Your task to perform on an android device: snooze an email in the gmail app Image 0: 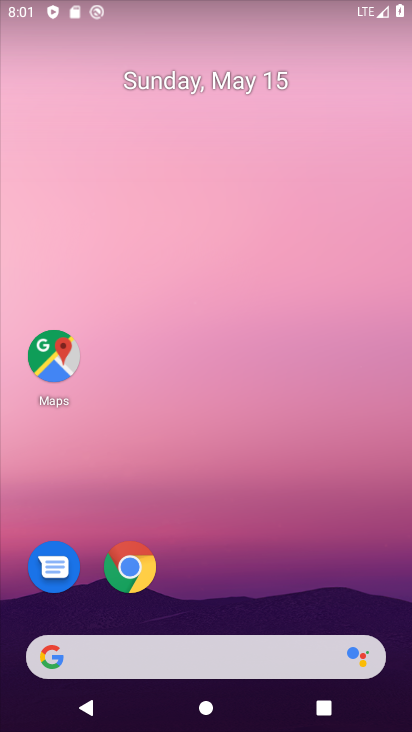
Step 0: drag from (222, 565) to (250, 84)
Your task to perform on an android device: snooze an email in the gmail app Image 1: 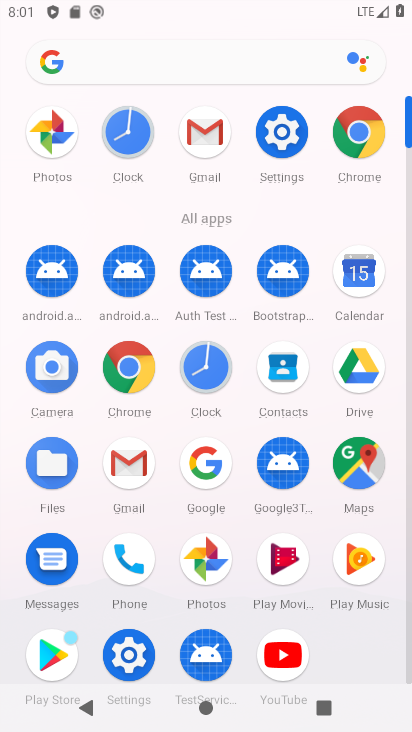
Step 1: click (206, 117)
Your task to perform on an android device: snooze an email in the gmail app Image 2: 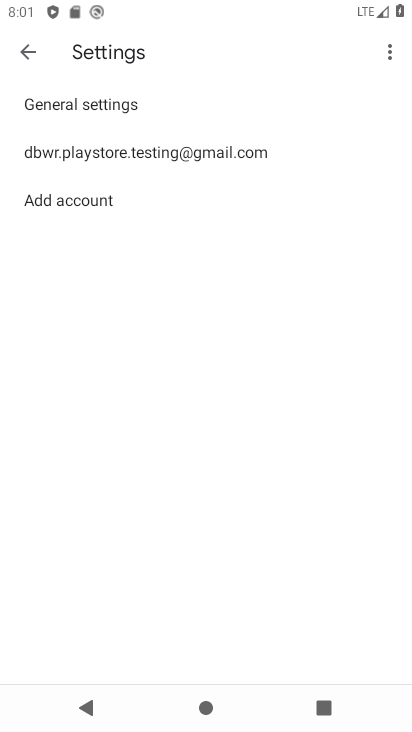
Step 2: click (25, 39)
Your task to perform on an android device: snooze an email in the gmail app Image 3: 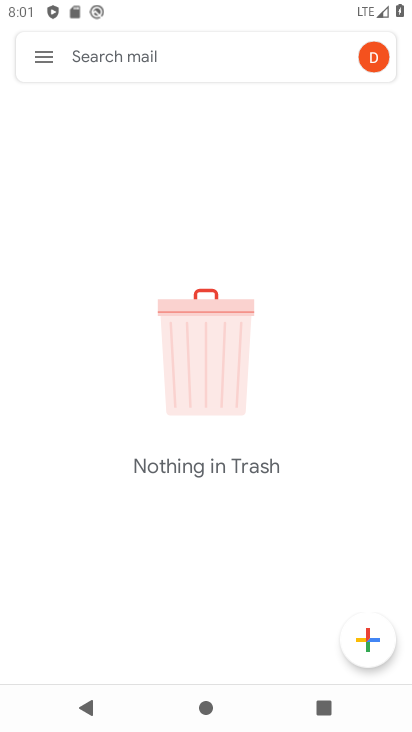
Step 3: click (33, 54)
Your task to perform on an android device: snooze an email in the gmail app Image 4: 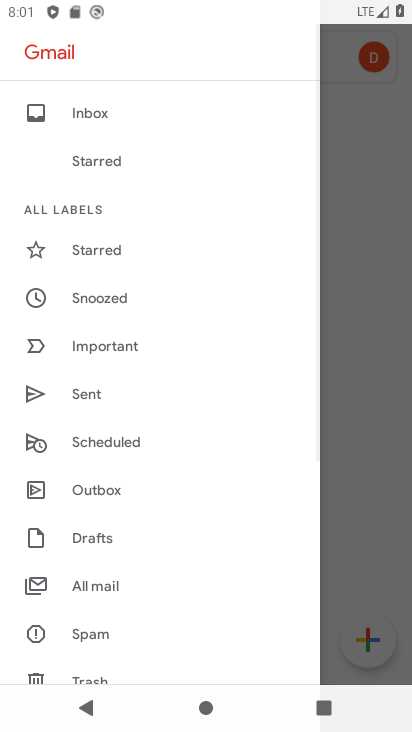
Step 4: click (94, 592)
Your task to perform on an android device: snooze an email in the gmail app Image 5: 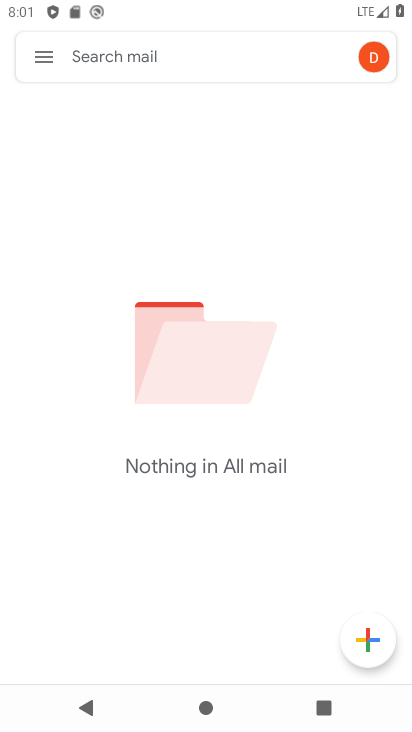
Step 5: task complete